Your task to perform on an android device: Open Youtube and go to "Your channel" Image 0: 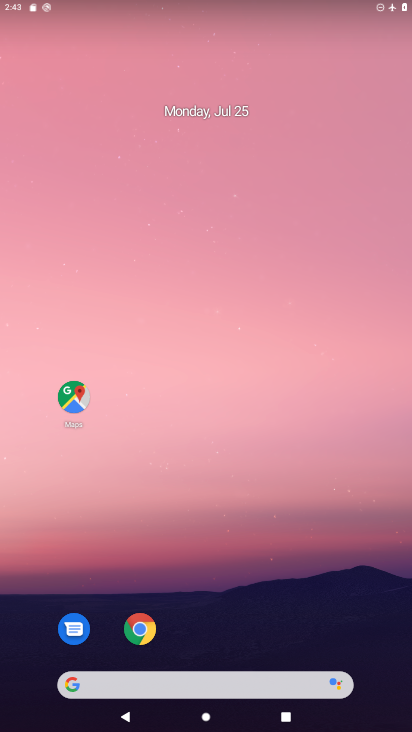
Step 0: drag from (250, 613) to (142, 5)
Your task to perform on an android device: Open Youtube and go to "Your channel" Image 1: 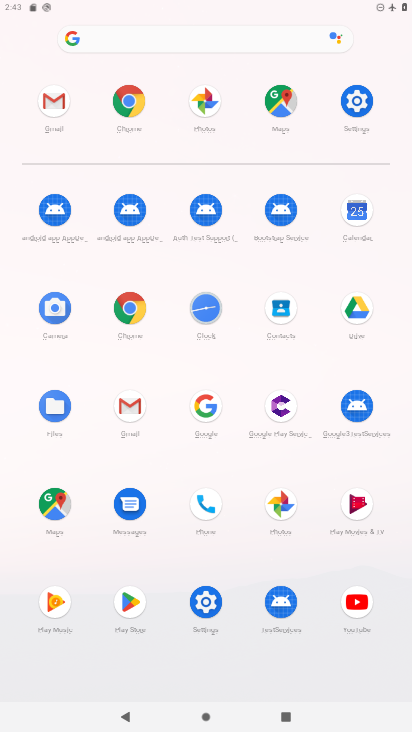
Step 1: click (338, 604)
Your task to perform on an android device: Open Youtube and go to "Your channel" Image 2: 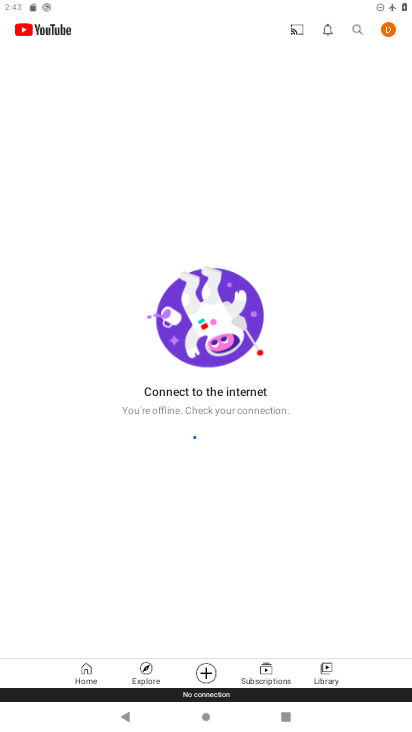
Step 2: click (380, 28)
Your task to perform on an android device: Open Youtube and go to "Your channel" Image 3: 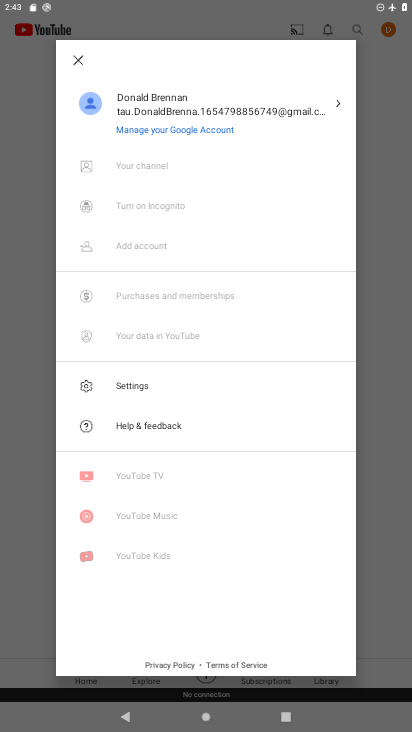
Step 3: task complete